Your task to perform on an android device: find photos in the google photos app Image 0: 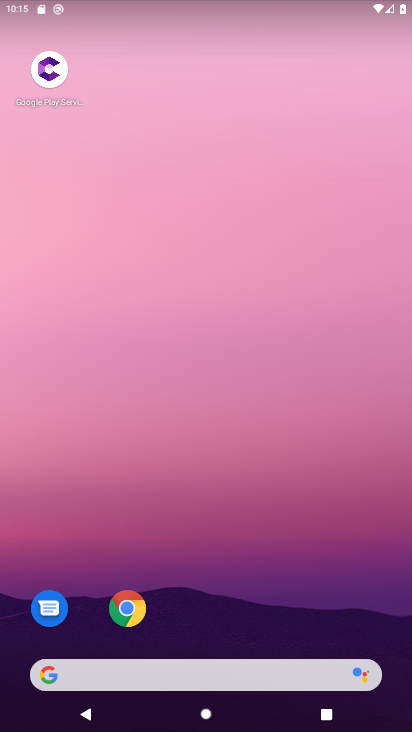
Step 0: drag from (214, 572) to (269, 185)
Your task to perform on an android device: find photos in the google photos app Image 1: 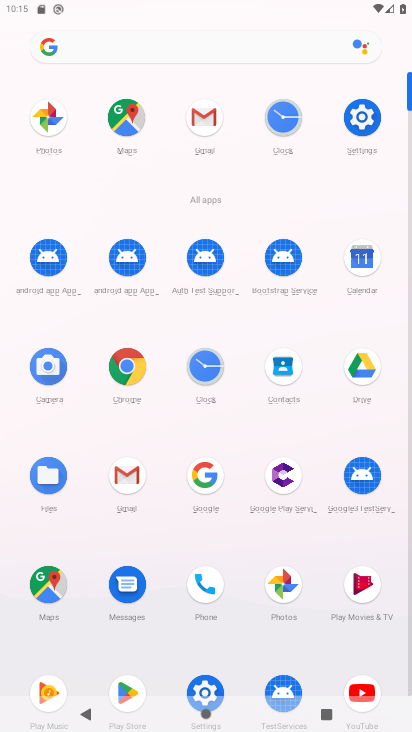
Step 1: click (279, 584)
Your task to perform on an android device: find photos in the google photos app Image 2: 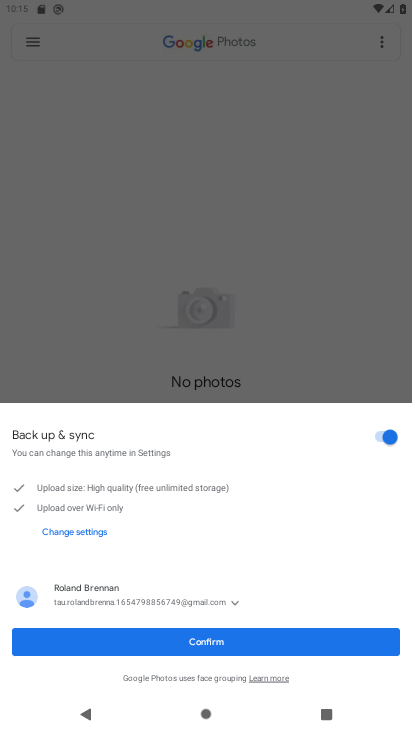
Step 2: click (242, 642)
Your task to perform on an android device: find photos in the google photos app Image 3: 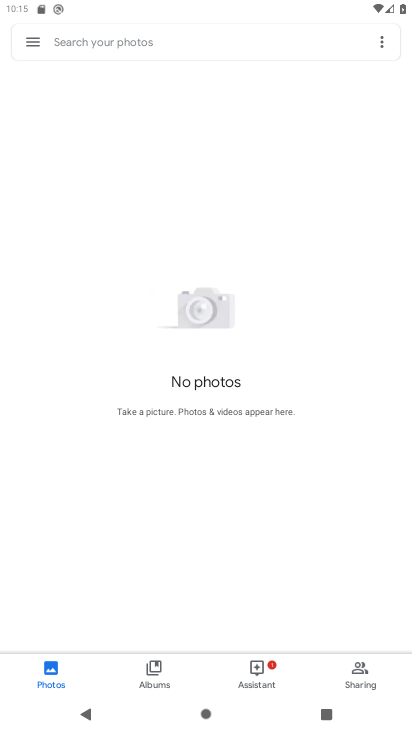
Step 3: task complete